Your task to perform on an android device: Check the weather Image 0: 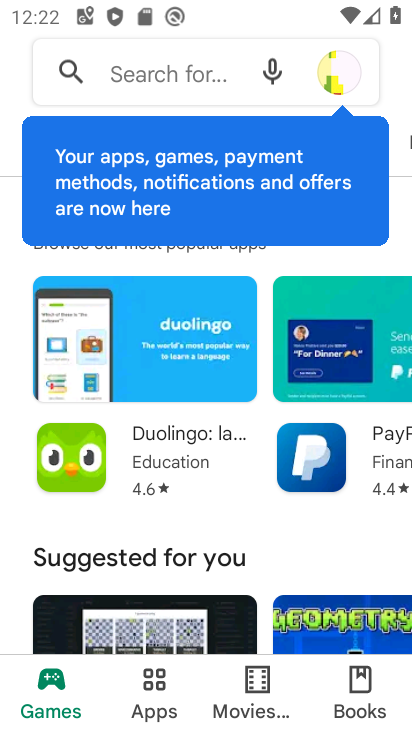
Step 0: press home button
Your task to perform on an android device: Check the weather Image 1: 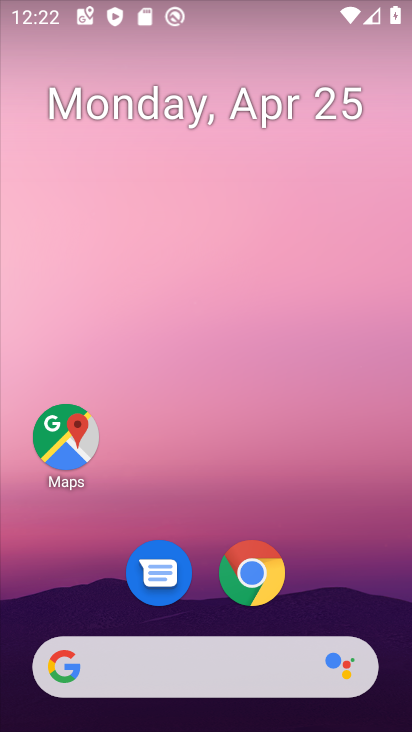
Step 1: drag from (10, 173) to (409, 160)
Your task to perform on an android device: Check the weather Image 2: 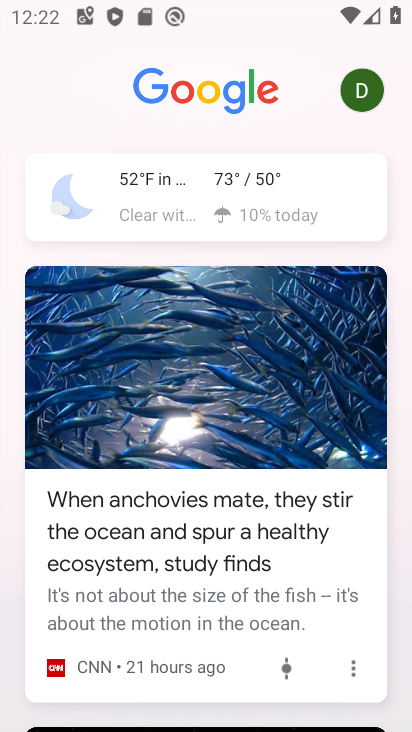
Step 2: click (262, 195)
Your task to perform on an android device: Check the weather Image 3: 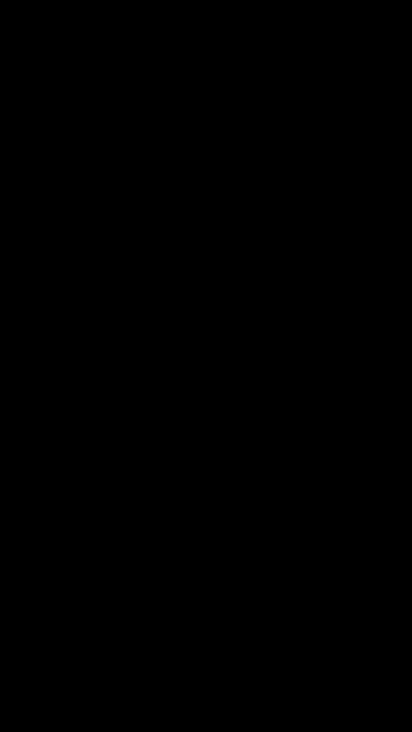
Step 3: task complete